Your task to perform on an android device: add a contact Image 0: 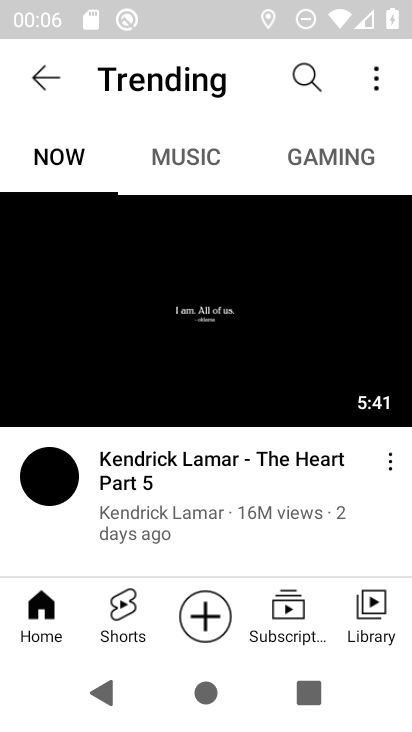
Step 0: press home button
Your task to perform on an android device: add a contact Image 1: 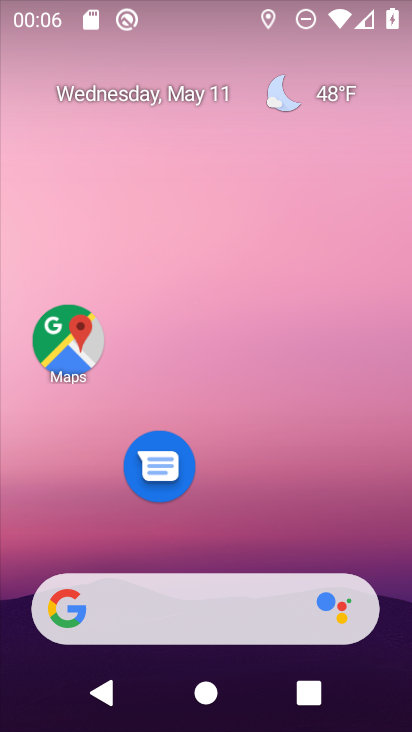
Step 1: drag from (237, 545) to (341, 45)
Your task to perform on an android device: add a contact Image 2: 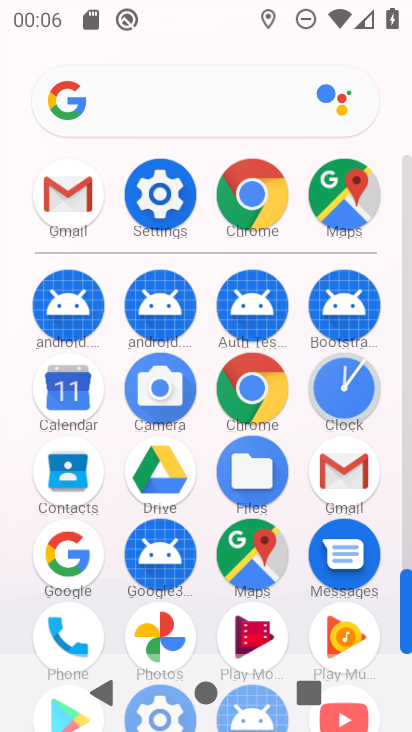
Step 2: click (61, 483)
Your task to perform on an android device: add a contact Image 3: 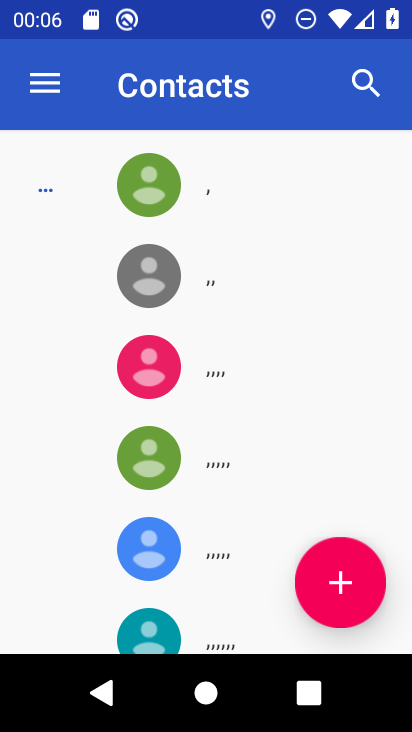
Step 3: click (344, 583)
Your task to perform on an android device: add a contact Image 4: 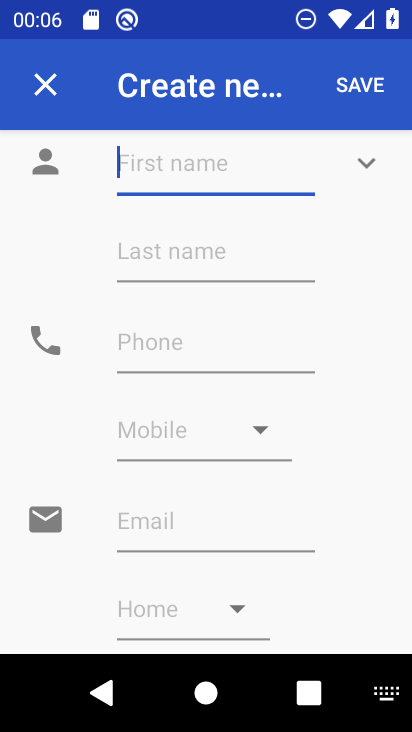
Step 4: type "zsxdcfvgbhnjmk"
Your task to perform on an android device: add a contact Image 5: 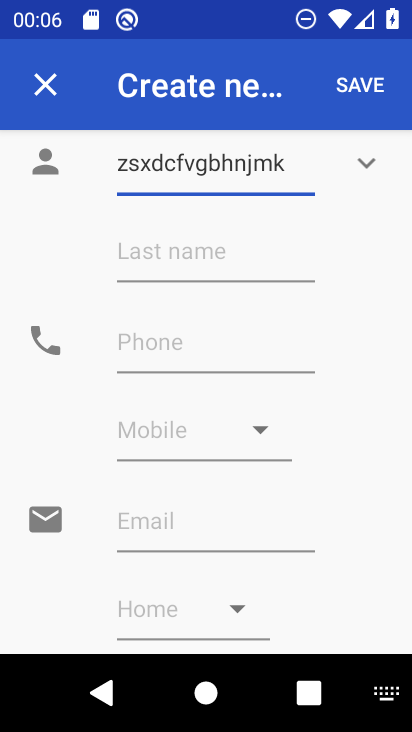
Step 5: click (164, 350)
Your task to perform on an android device: add a contact Image 6: 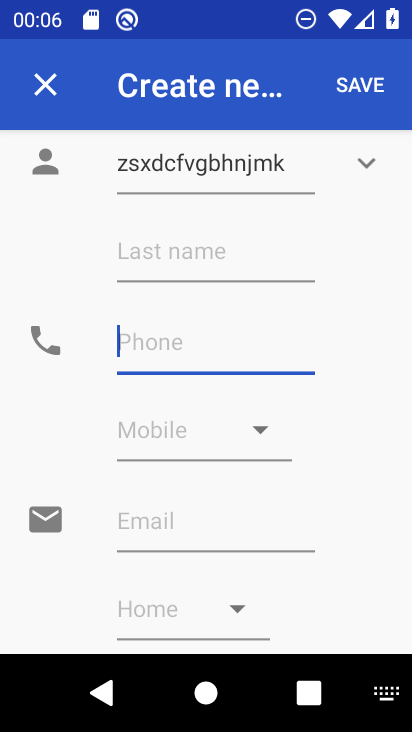
Step 6: type "6754839201"
Your task to perform on an android device: add a contact Image 7: 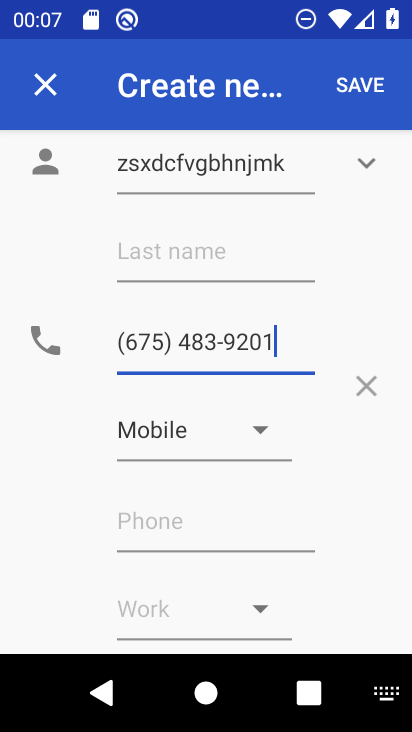
Step 7: click (382, 89)
Your task to perform on an android device: add a contact Image 8: 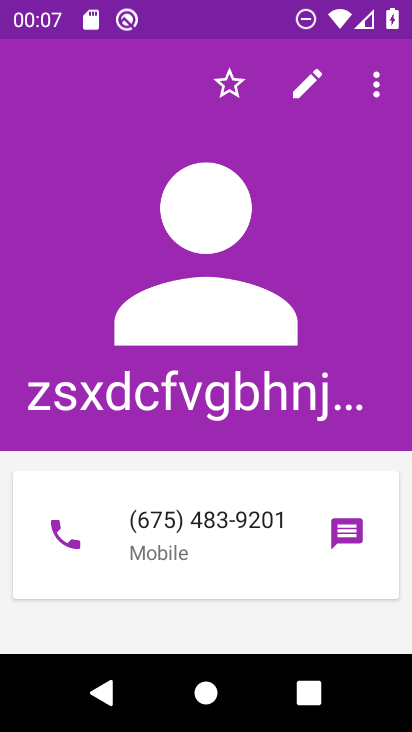
Step 8: task complete